Your task to perform on an android device: turn on wifi Image 0: 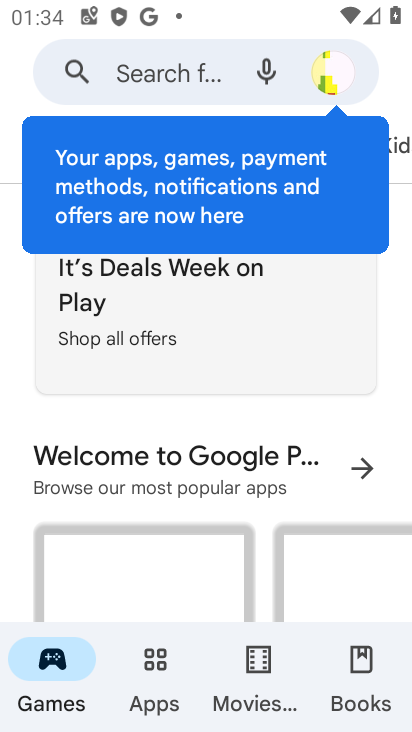
Step 0: press home button
Your task to perform on an android device: turn on wifi Image 1: 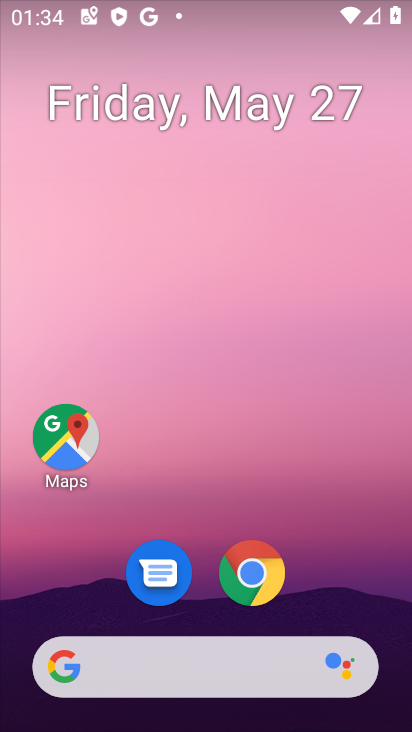
Step 1: drag from (192, 614) to (116, 39)
Your task to perform on an android device: turn on wifi Image 2: 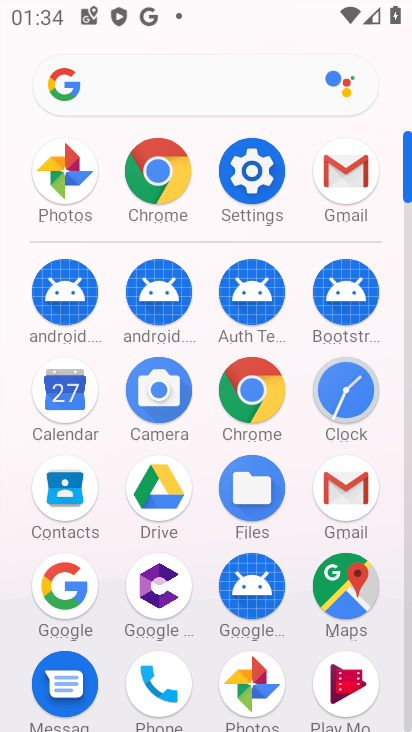
Step 2: click (251, 189)
Your task to perform on an android device: turn on wifi Image 3: 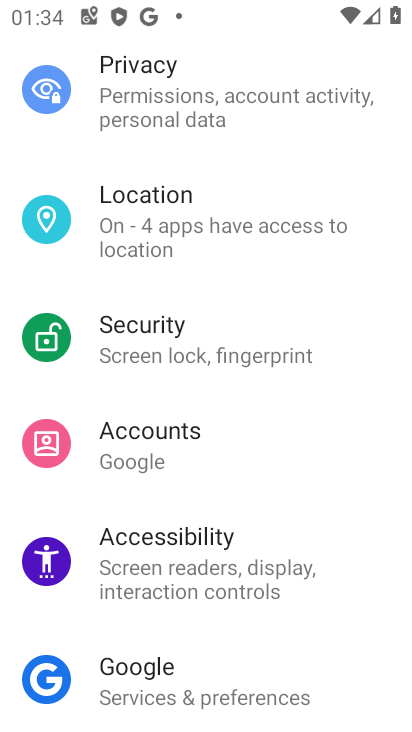
Step 3: drag from (177, 121) to (158, 431)
Your task to perform on an android device: turn on wifi Image 4: 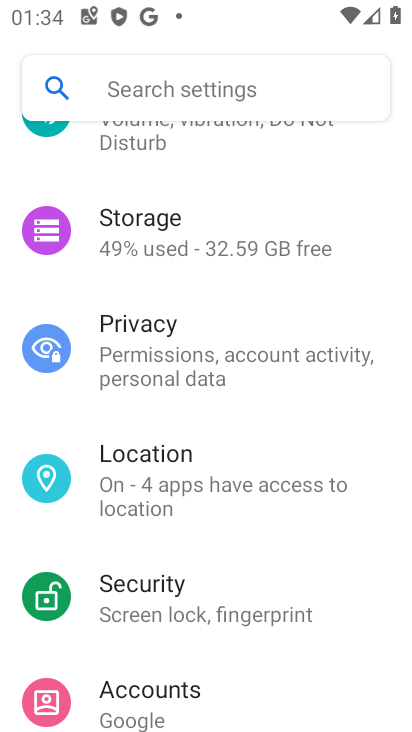
Step 4: drag from (173, 343) to (179, 591)
Your task to perform on an android device: turn on wifi Image 5: 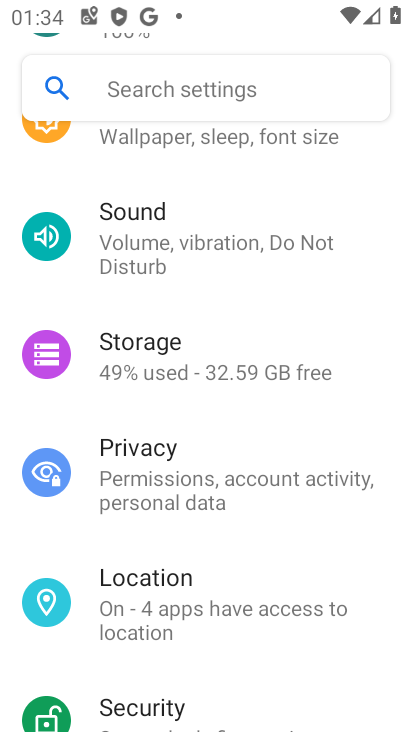
Step 5: drag from (326, 191) to (243, 634)
Your task to perform on an android device: turn on wifi Image 6: 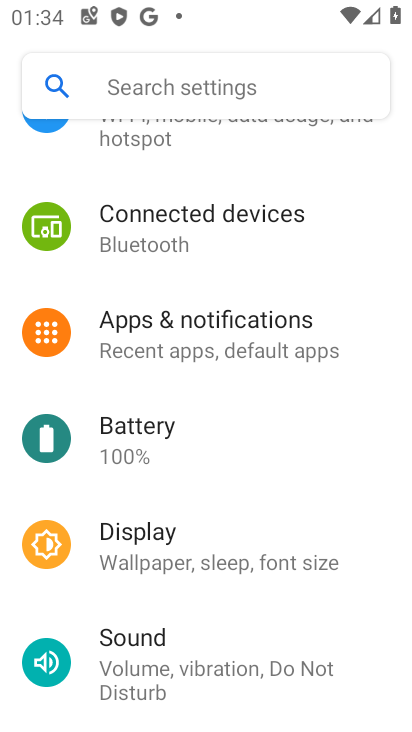
Step 6: drag from (203, 166) to (174, 473)
Your task to perform on an android device: turn on wifi Image 7: 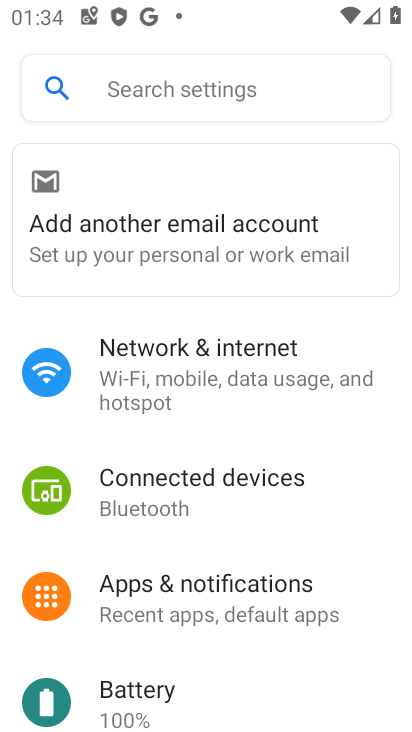
Step 7: click (186, 352)
Your task to perform on an android device: turn on wifi Image 8: 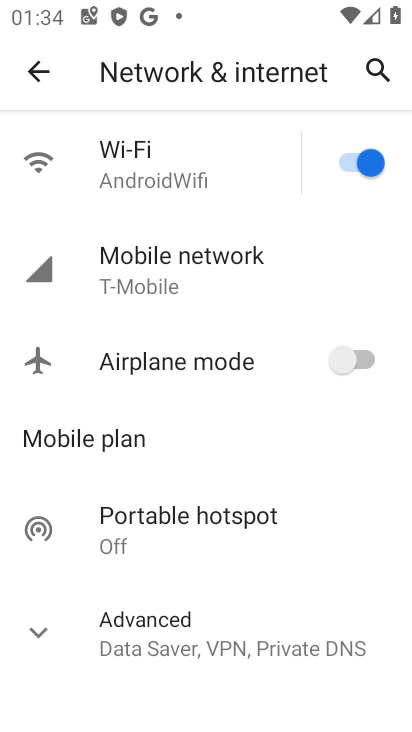
Step 8: click (225, 153)
Your task to perform on an android device: turn on wifi Image 9: 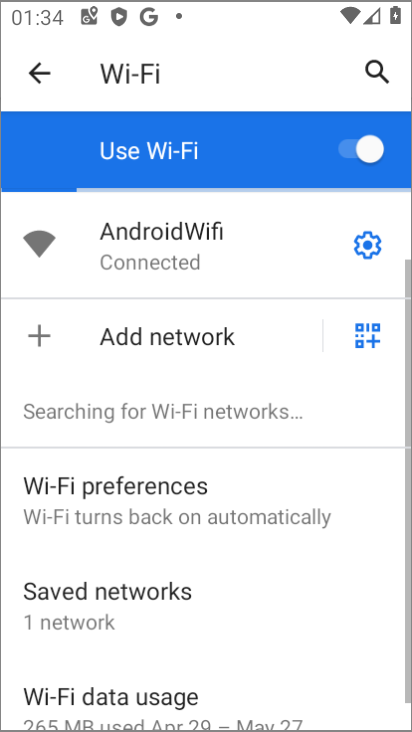
Step 9: task complete